Your task to perform on an android device: turn off notifications settings in the gmail app Image 0: 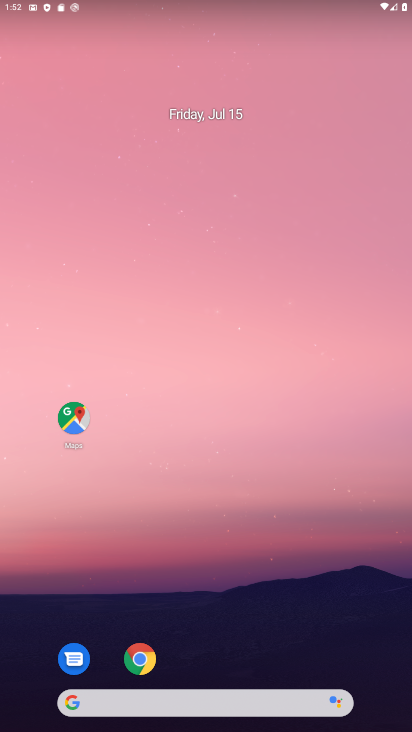
Step 0: drag from (334, 660) to (214, 246)
Your task to perform on an android device: turn off notifications settings in the gmail app Image 1: 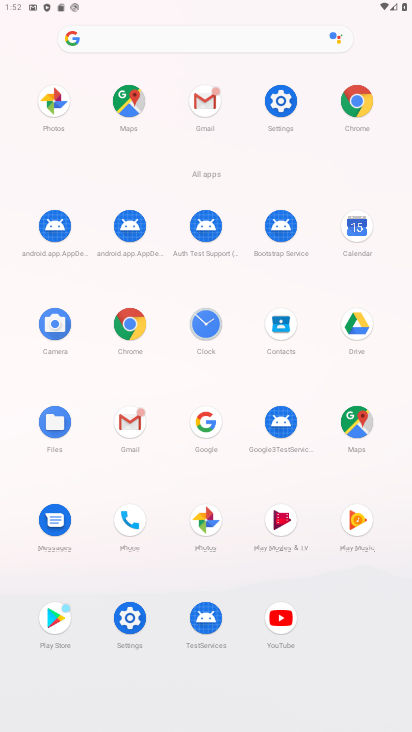
Step 1: click (269, 107)
Your task to perform on an android device: turn off notifications settings in the gmail app Image 2: 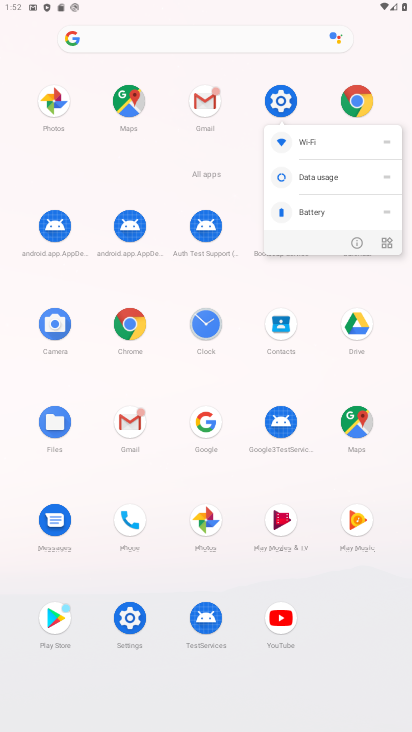
Step 2: click (136, 424)
Your task to perform on an android device: turn off notifications settings in the gmail app Image 3: 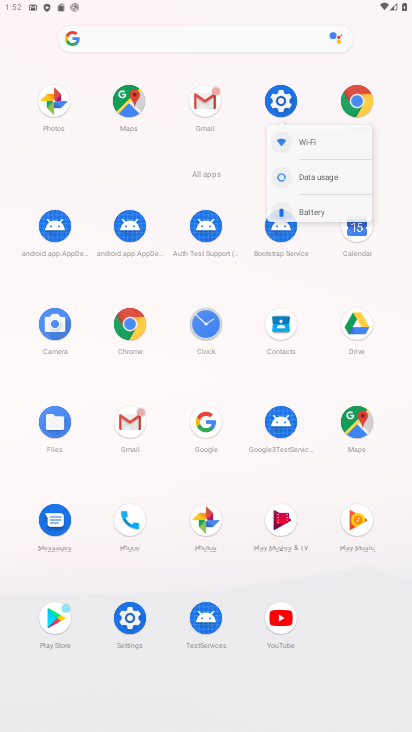
Step 3: click (130, 424)
Your task to perform on an android device: turn off notifications settings in the gmail app Image 4: 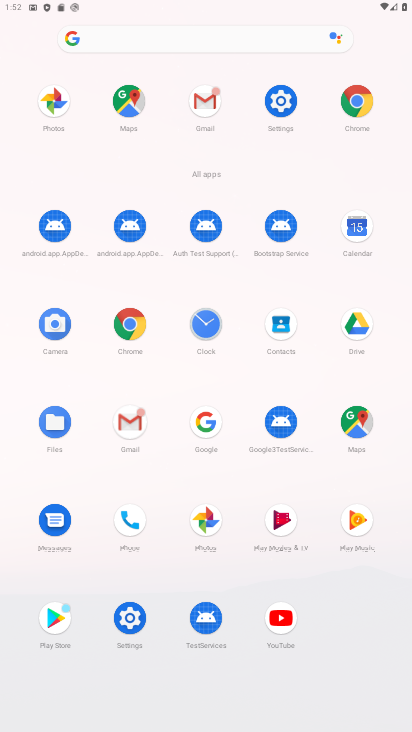
Step 4: click (130, 424)
Your task to perform on an android device: turn off notifications settings in the gmail app Image 5: 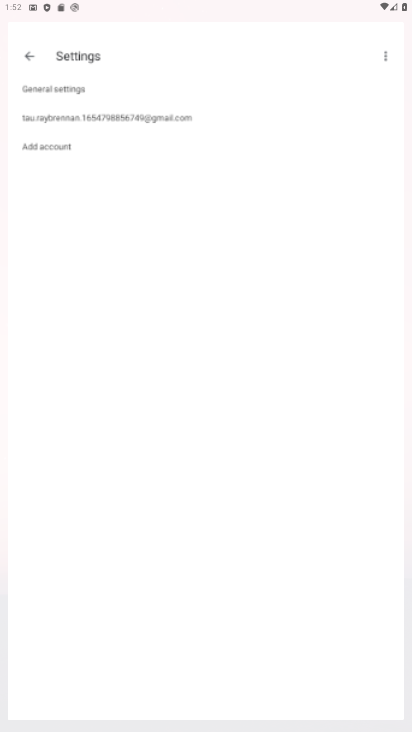
Step 5: click (130, 424)
Your task to perform on an android device: turn off notifications settings in the gmail app Image 6: 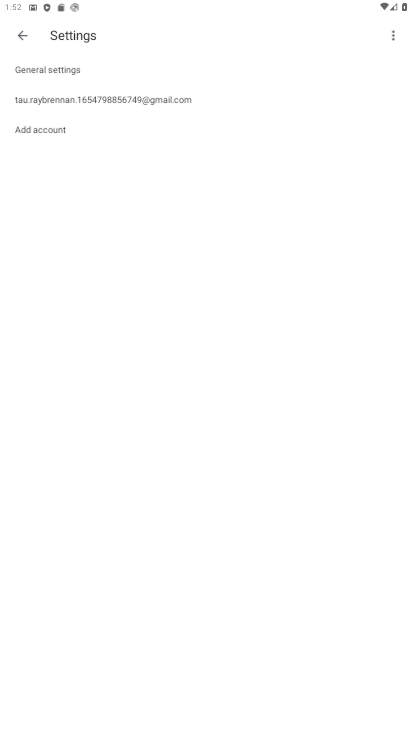
Step 6: click (130, 424)
Your task to perform on an android device: turn off notifications settings in the gmail app Image 7: 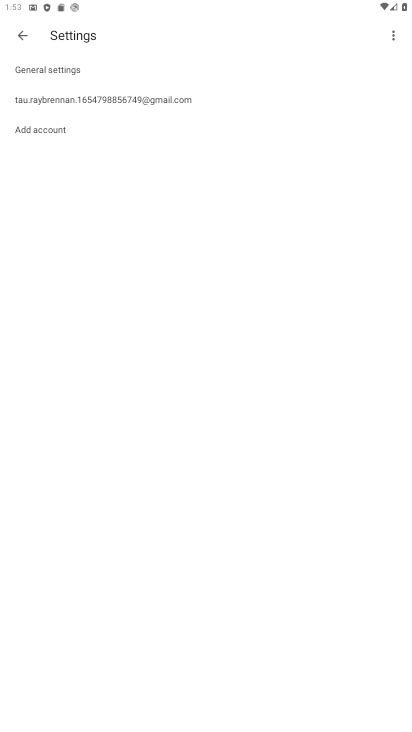
Step 7: click (69, 96)
Your task to perform on an android device: turn off notifications settings in the gmail app Image 8: 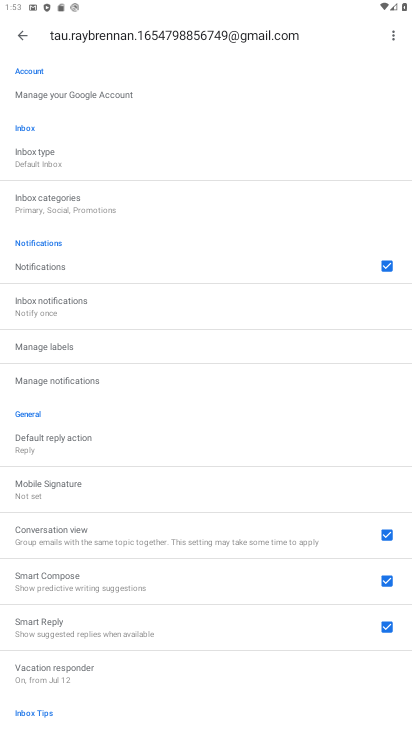
Step 8: click (36, 273)
Your task to perform on an android device: turn off notifications settings in the gmail app Image 9: 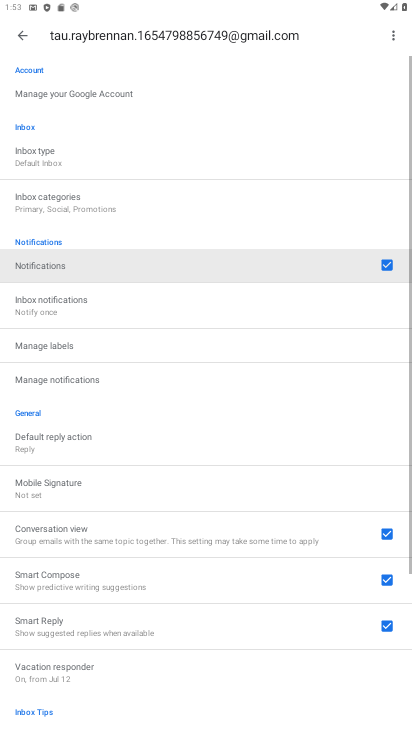
Step 9: click (39, 267)
Your task to perform on an android device: turn off notifications settings in the gmail app Image 10: 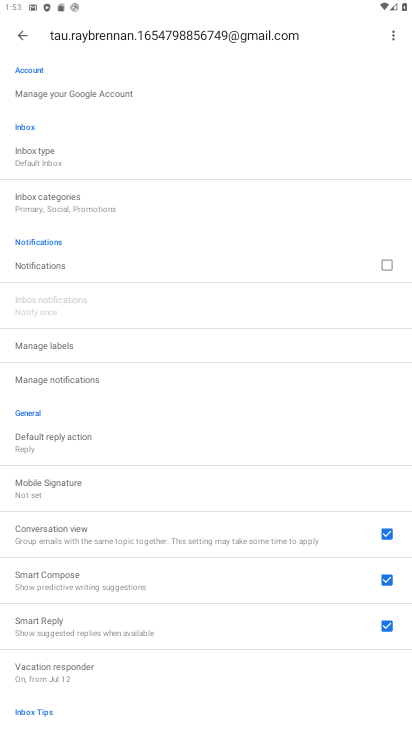
Step 10: click (26, 263)
Your task to perform on an android device: turn off notifications settings in the gmail app Image 11: 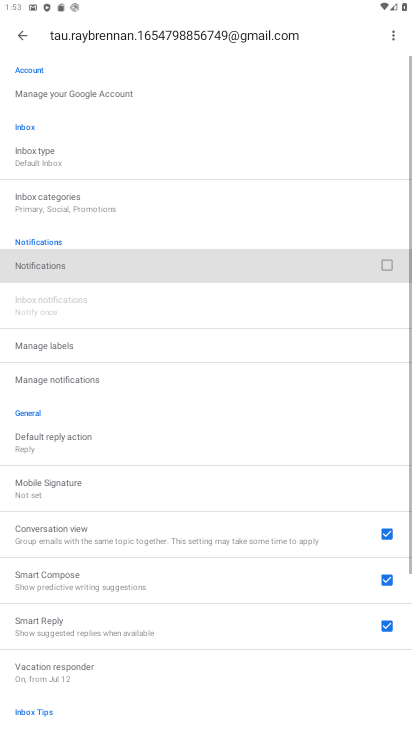
Step 11: click (26, 263)
Your task to perform on an android device: turn off notifications settings in the gmail app Image 12: 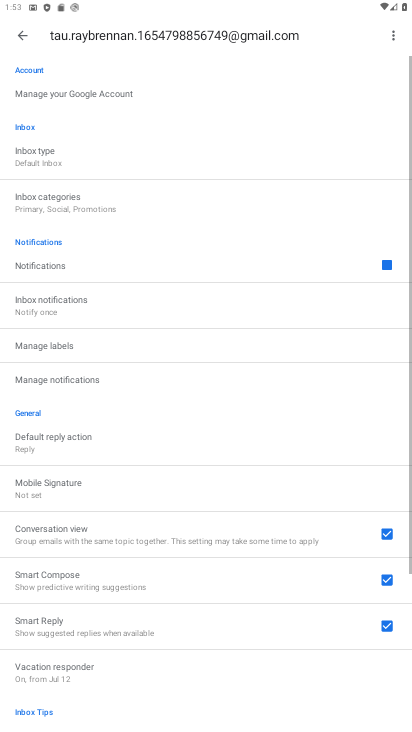
Step 12: click (26, 263)
Your task to perform on an android device: turn off notifications settings in the gmail app Image 13: 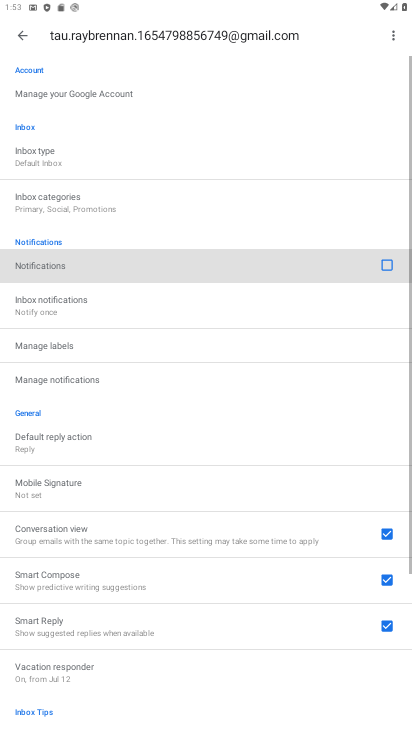
Step 13: click (31, 256)
Your task to perform on an android device: turn off notifications settings in the gmail app Image 14: 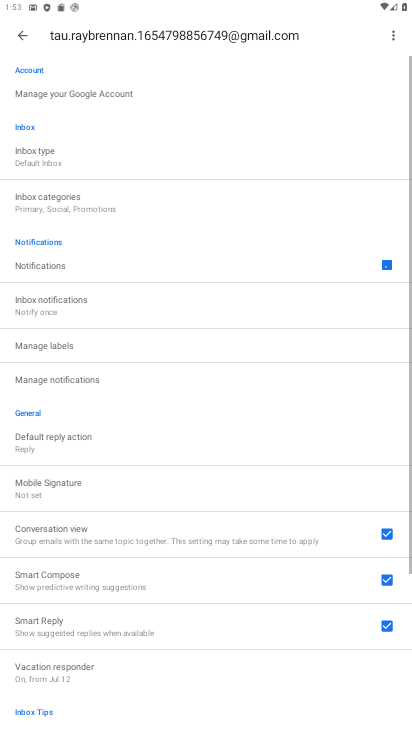
Step 14: click (31, 256)
Your task to perform on an android device: turn off notifications settings in the gmail app Image 15: 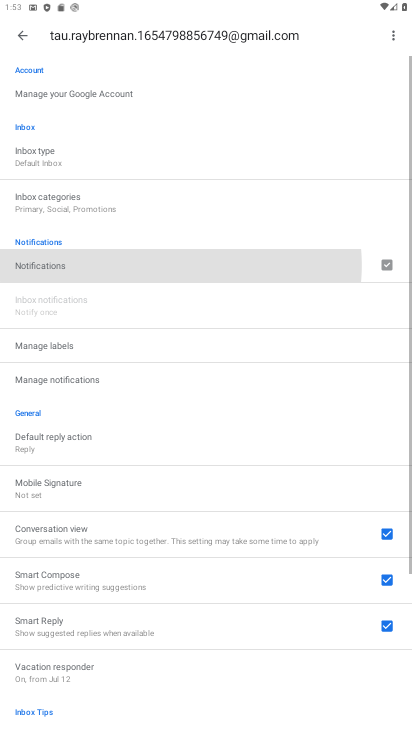
Step 15: click (32, 256)
Your task to perform on an android device: turn off notifications settings in the gmail app Image 16: 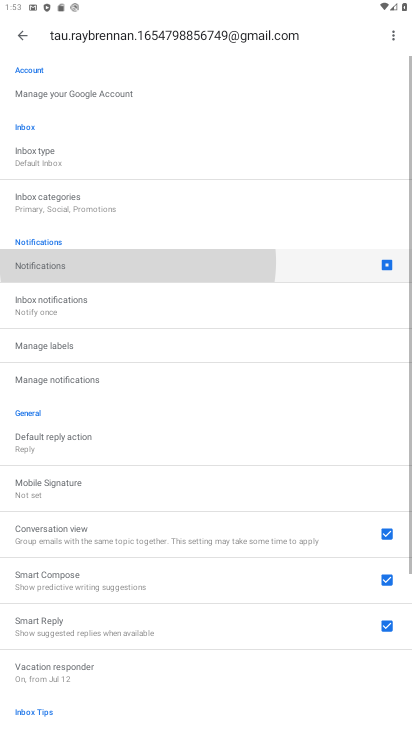
Step 16: click (33, 256)
Your task to perform on an android device: turn off notifications settings in the gmail app Image 17: 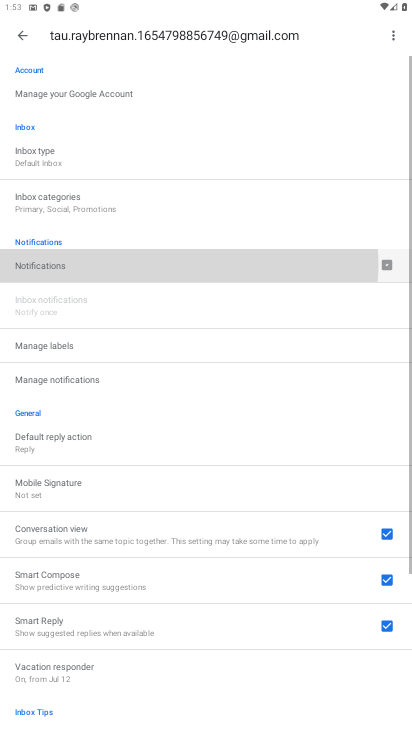
Step 17: click (38, 254)
Your task to perform on an android device: turn off notifications settings in the gmail app Image 18: 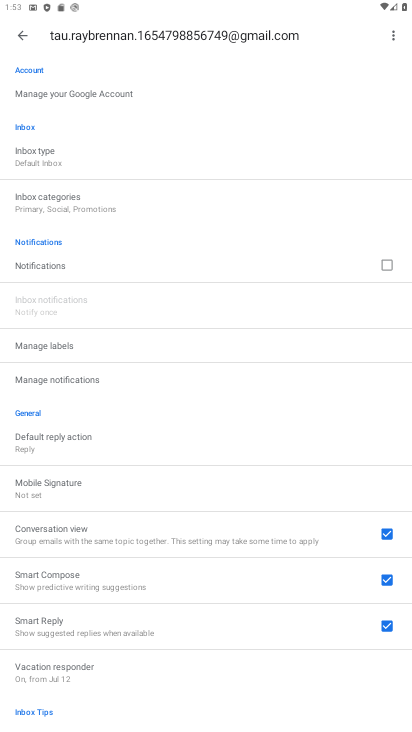
Step 18: task complete